Your task to perform on an android device: toggle airplane mode Image 0: 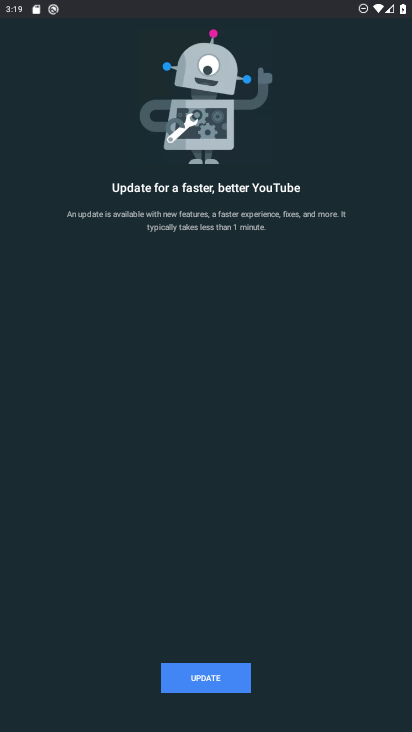
Step 0: press home button
Your task to perform on an android device: toggle airplane mode Image 1: 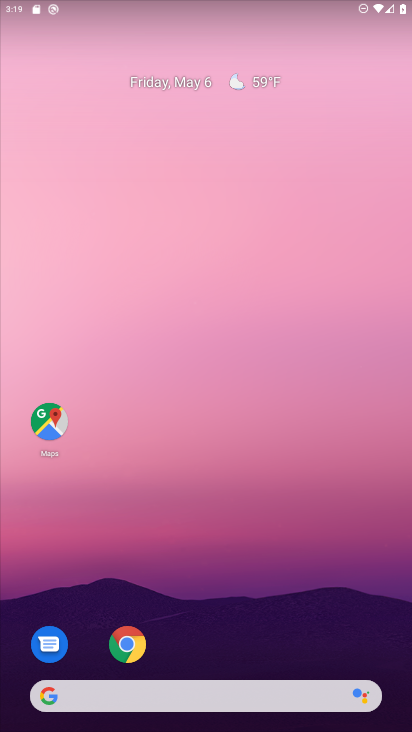
Step 1: drag from (244, 632) to (208, 23)
Your task to perform on an android device: toggle airplane mode Image 2: 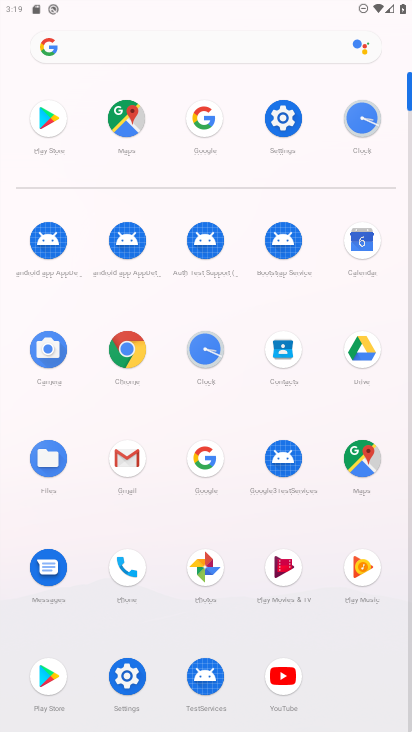
Step 2: click (279, 117)
Your task to perform on an android device: toggle airplane mode Image 3: 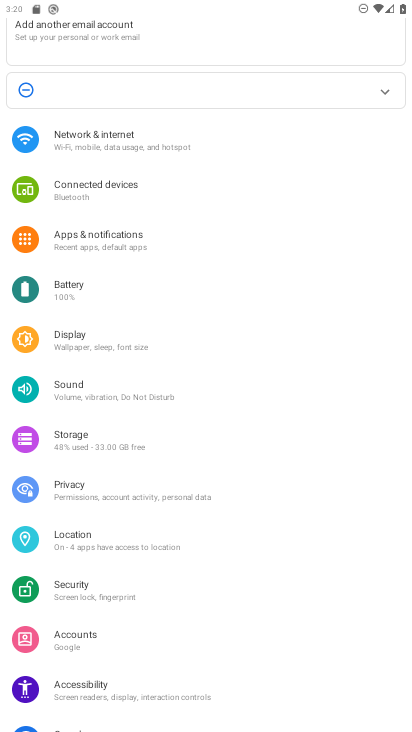
Step 3: click (92, 137)
Your task to perform on an android device: toggle airplane mode Image 4: 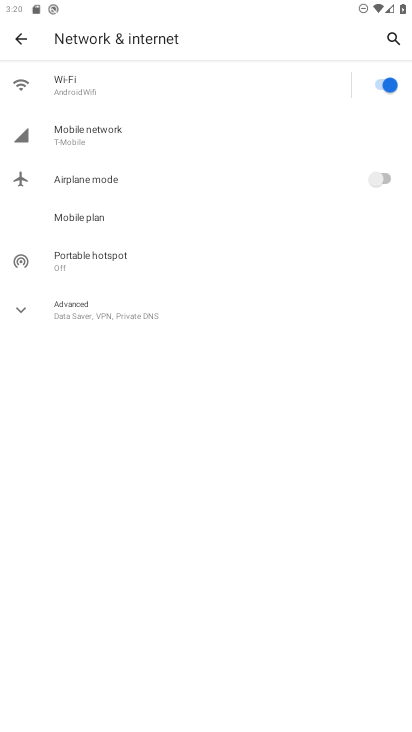
Step 4: click (385, 173)
Your task to perform on an android device: toggle airplane mode Image 5: 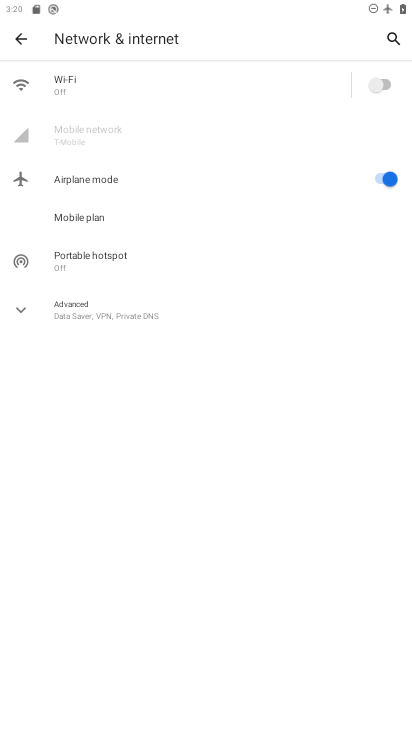
Step 5: task complete